Your task to perform on an android device: toggle sleep mode Image 0: 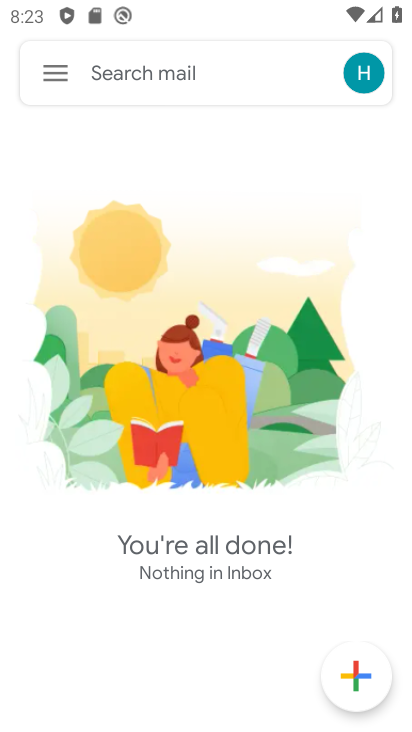
Step 0: press home button
Your task to perform on an android device: toggle sleep mode Image 1: 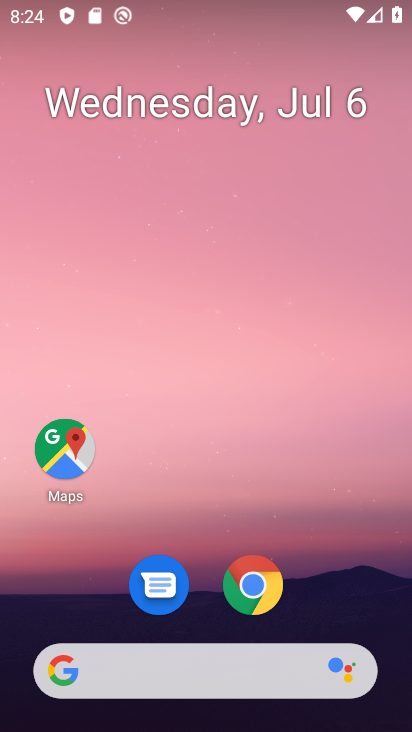
Step 1: drag from (190, 519) to (245, 3)
Your task to perform on an android device: toggle sleep mode Image 2: 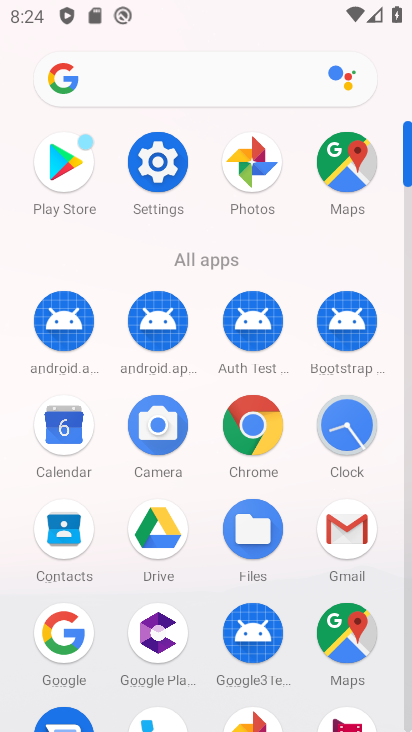
Step 2: click (166, 171)
Your task to perform on an android device: toggle sleep mode Image 3: 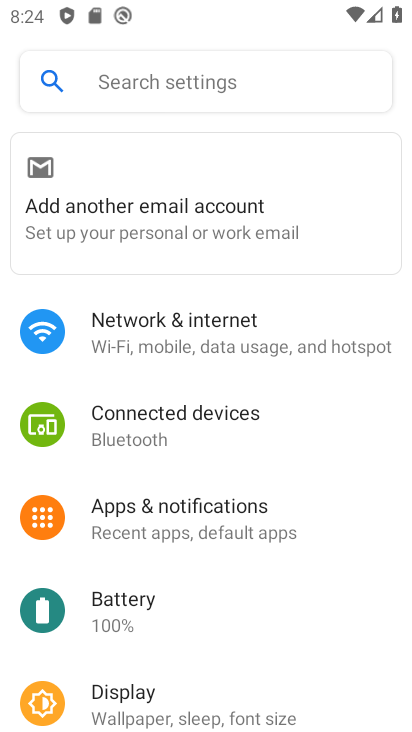
Step 3: drag from (179, 590) to (240, 163)
Your task to perform on an android device: toggle sleep mode Image 4: 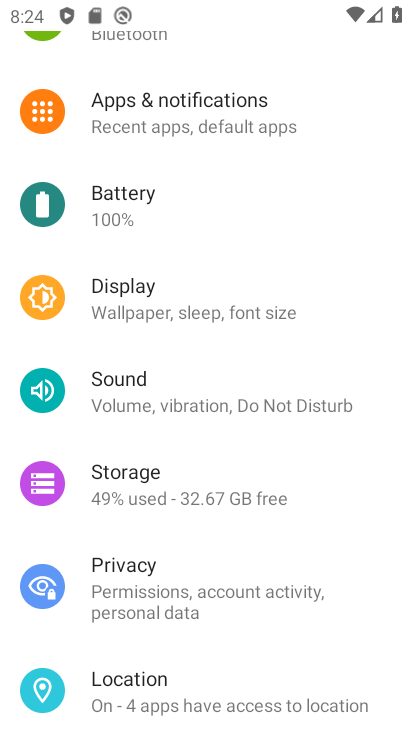
Step 4: click (39, 295)
Your task to perform on an android device: toggle sleep mode Image 5: 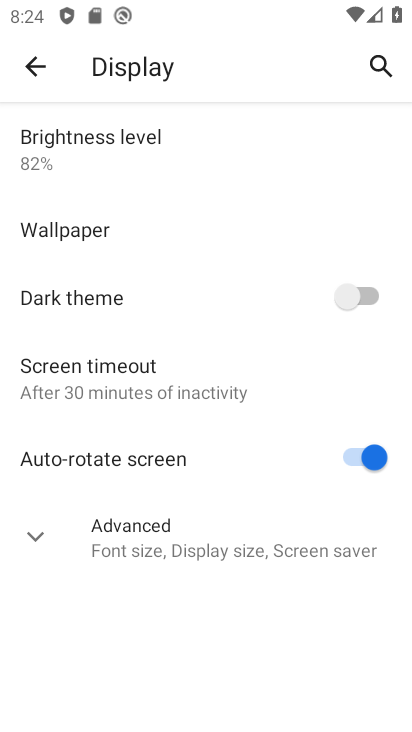
Step 5: click (38, 531)
Your task to perform on an android device: toggle sleep mode Image 6: 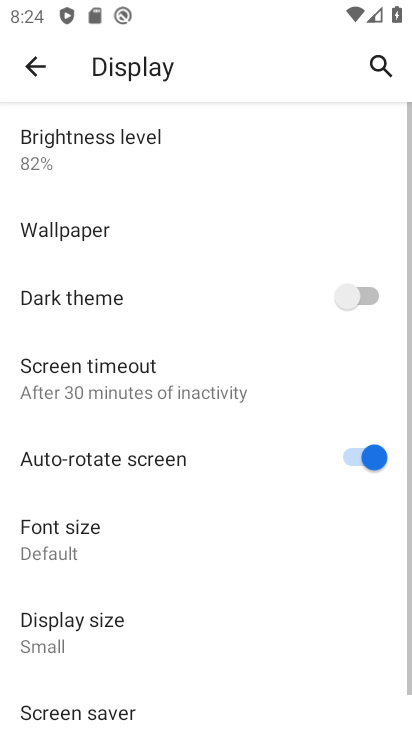
Step 6: task complete